Your task to perform on an android device: Go to network settings Image 0: 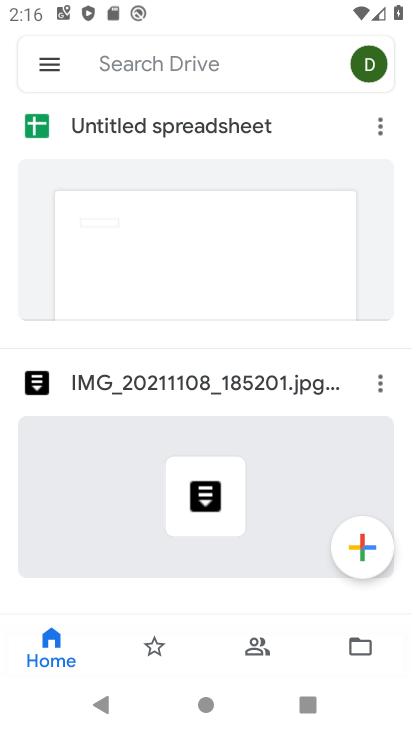
Step 0: press home button
Your task to perform on an android device: Go to network settings Image 1: 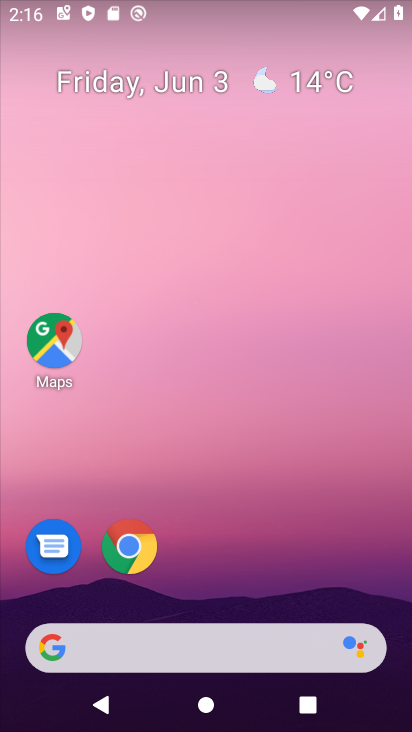
Step 1: drag from (319, 532) to (300, 0)
Your task to perform on an android device: Go to network settings Image 2: 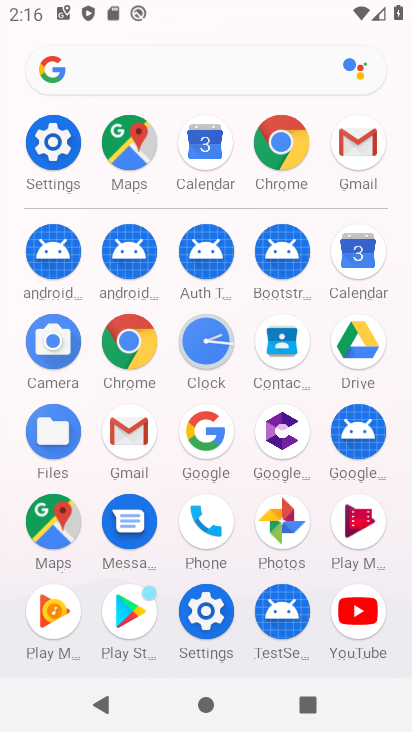
Step 2: click (65, 162)
Your task to perform on an android device: Go to network settings Image 3: 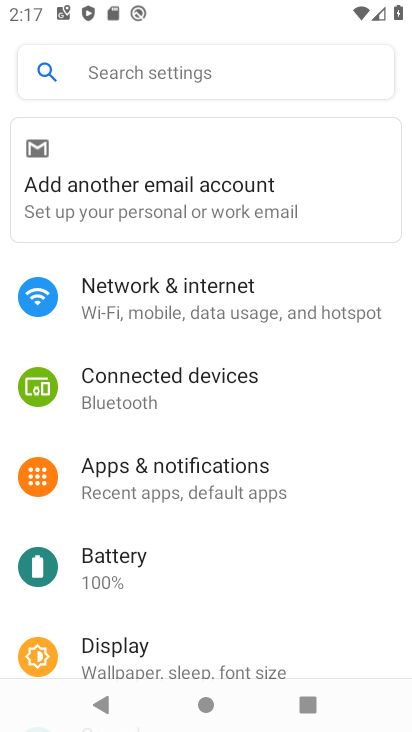
Step 3: click (178, 316)
Your task to perform on an android device: Go to network settings Image 4: 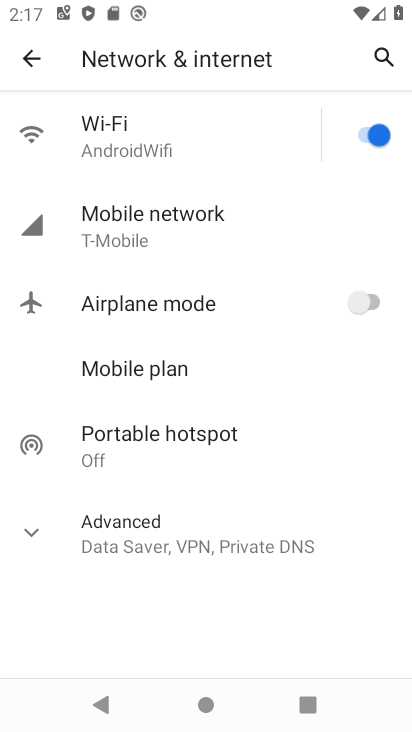
Step 4: task complete